Your task to perform on an android device: open app "DoorDash - Dasher" Image 0: 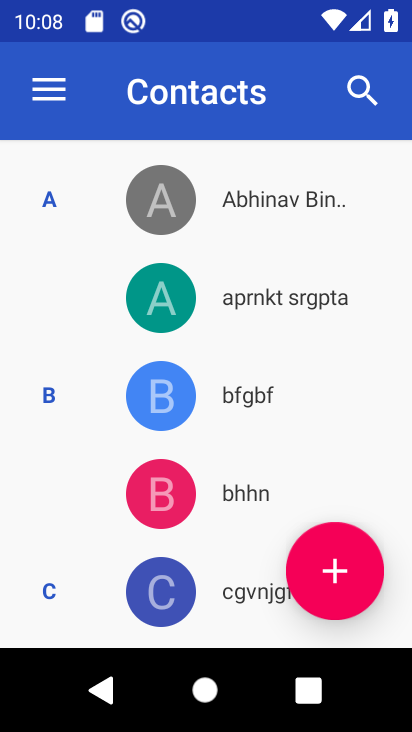
Step 0: press home button
Your task to perform on an android device: open app "DoorDash - Dasher" Image 1: 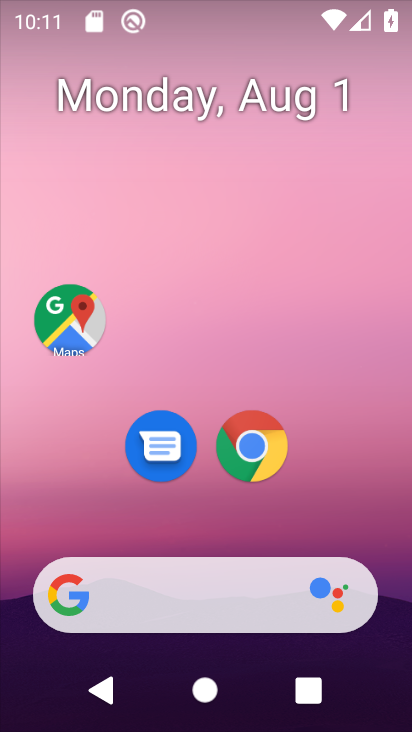
Step 1: drag from (218, 421) to (12, 341)
Your task to perform on an android device: open app "DoorDash - Dasher" Image 2: 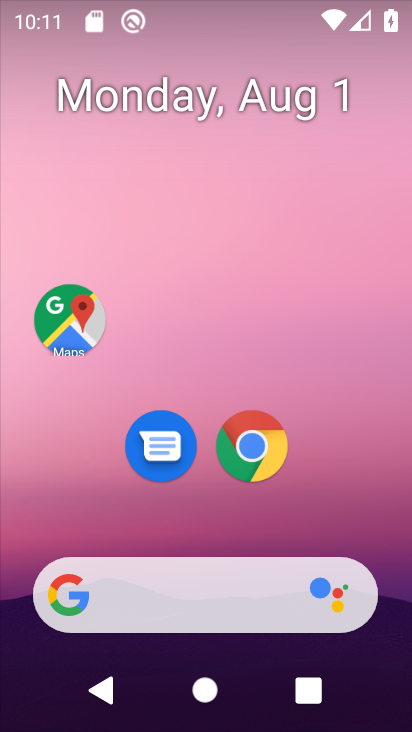
Step 2: click (223, 318)
Your task to perform on an android device: open app "DoorDash - Dasher" Image 3: 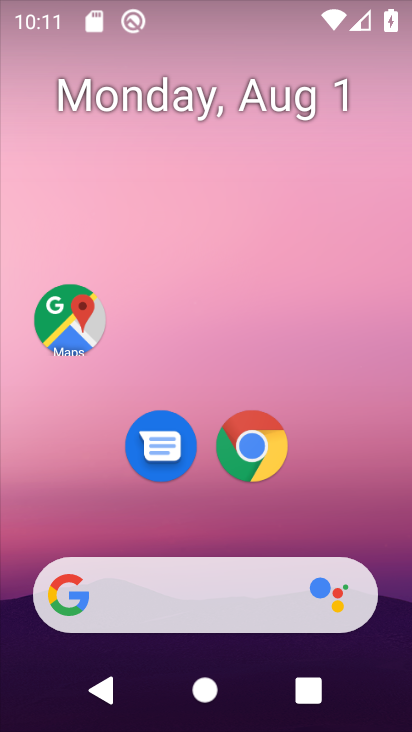
Step 3: drag from (175, 531) to (184, 153)
Your task to perform on an android device: open app "DoorDash - Dasher" Image 4: 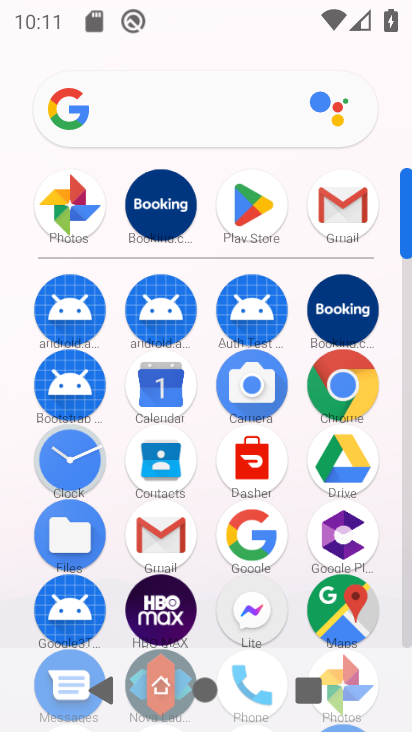
Step 4: click (236, 217)
Your task to perform on an android device: open app "DoorDash - Dasher" Image 5: 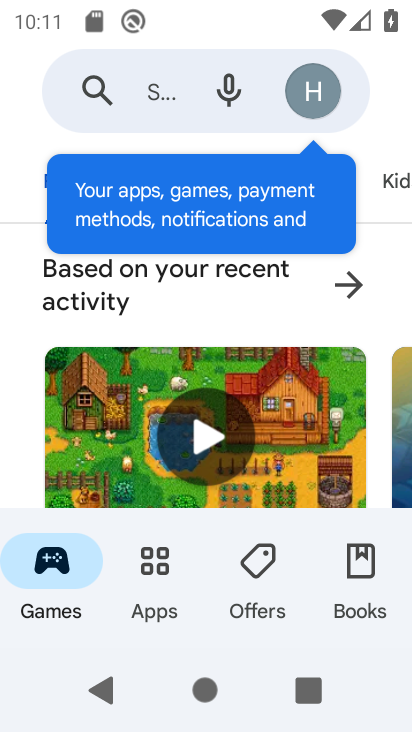
Step 5: click (155, 81)
Your task to perform on an android device: open app "DoorDash - Dasher" Image 6: 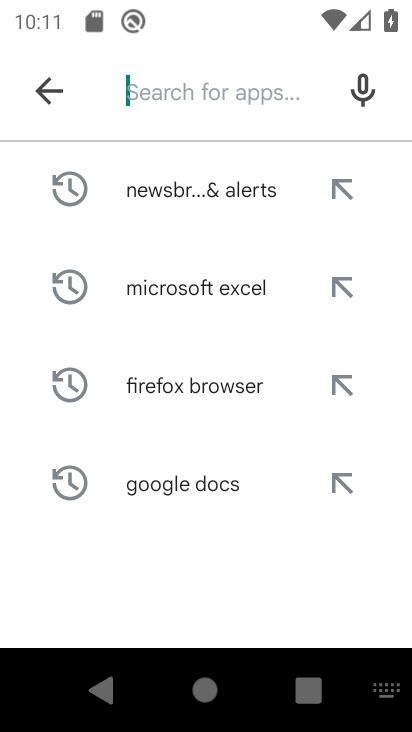
Step 6: type "DoorDash - Dasher"
Your task to perform on an android device: open app "DoorDash - Dasher" Image 7: 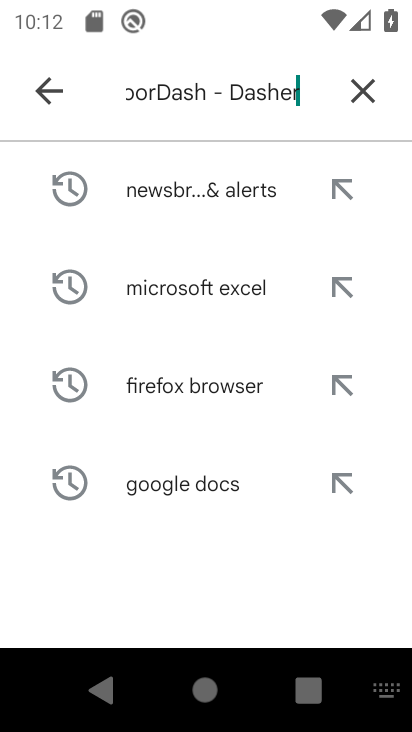
Step 7: type ""
Your task to perform on an android device: open app "DoorDash - Dasher" Image 8: 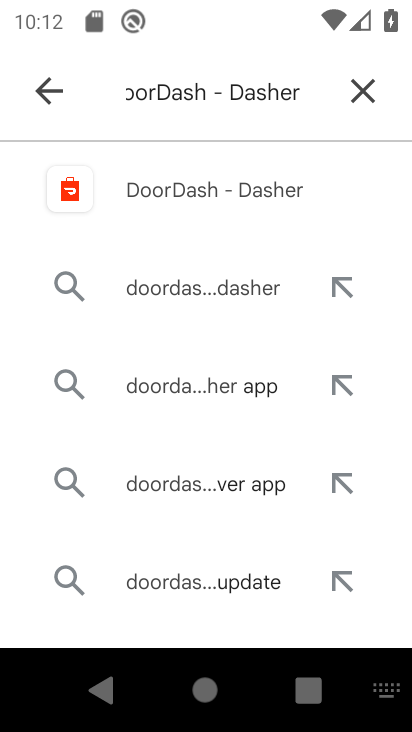
Step 8: click (216, 185)
Your task to perform on an android device: open app "DoorDash - Dasher" Image 9: 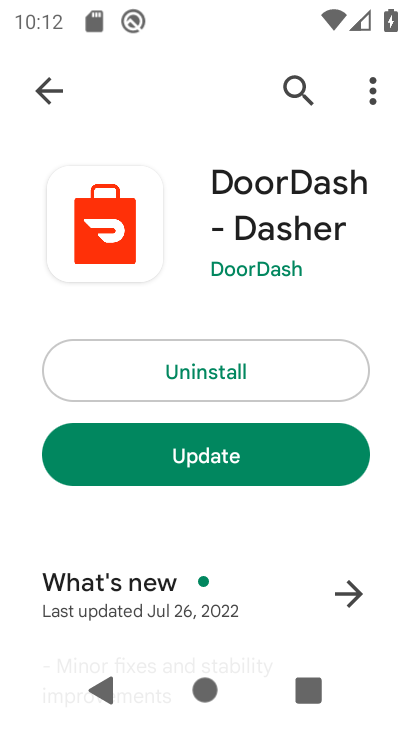
Step 9: click (270, 466)
Your task to perform on an android device: open app "DoorDash - Dasher" Image 10: 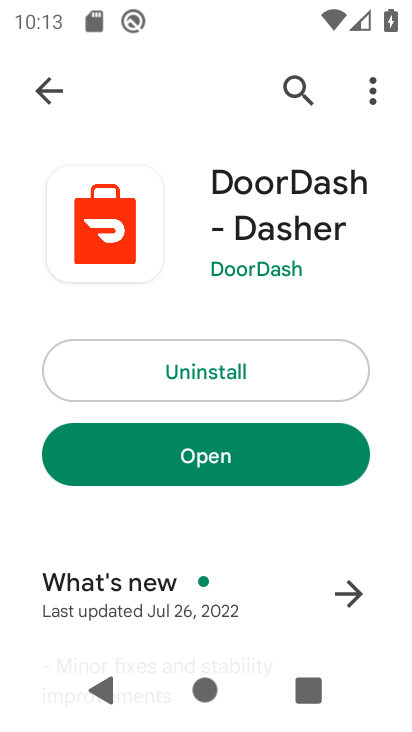
Step 10: click (228, 475)
Your task to perform on an android device: open app "DoorDash - Dasher" Image 11: 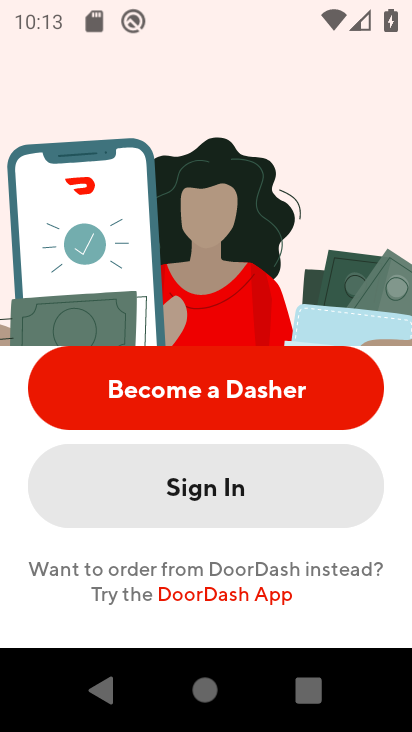
Step 11: task complete